Your task to perform on an android device: change notifications settings Image 0: 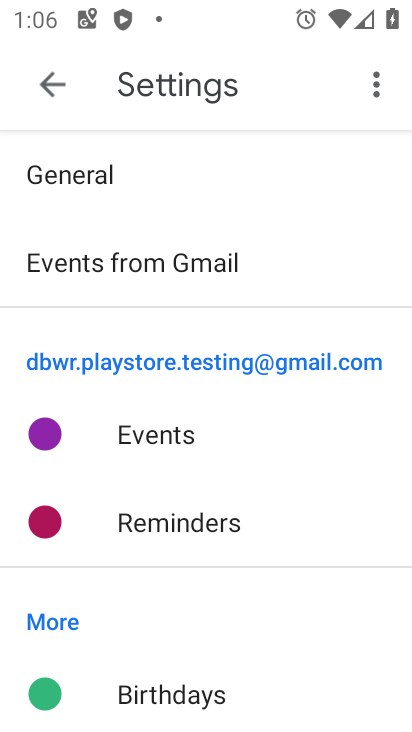
Step 0: press home button
Your task to perform on an android device: change notifications settings Image 1: 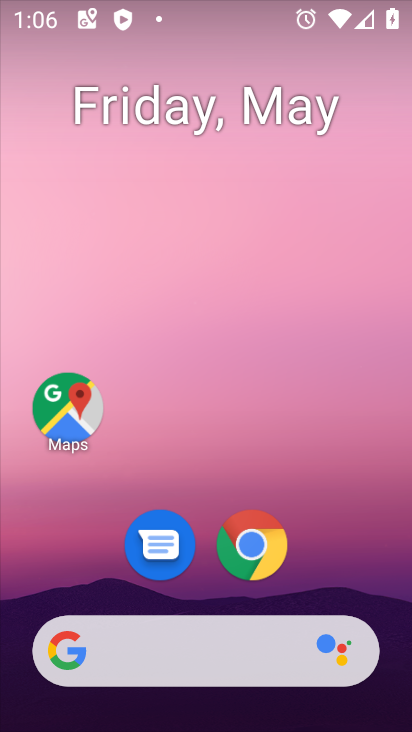
Step 1: drag from (334, 556) to (275, 78)
Your task to perform on an android device: change notifications settings Image 2: 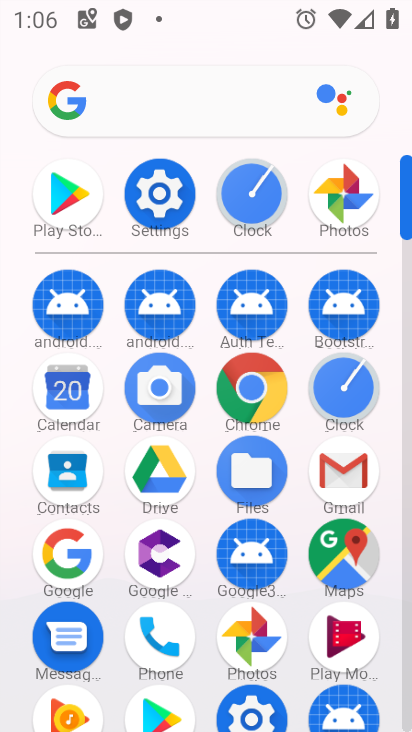
Step 2: click (163, 172)
Your task to perform on an android device: change notifications settings Image 3: 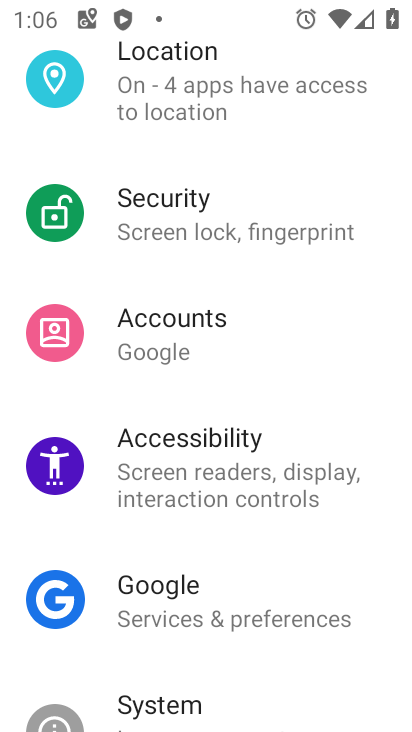
Step 3: drag from (289, 185) to (262, 615)
Your task to perform on an android device: change notifications settings Image 4: 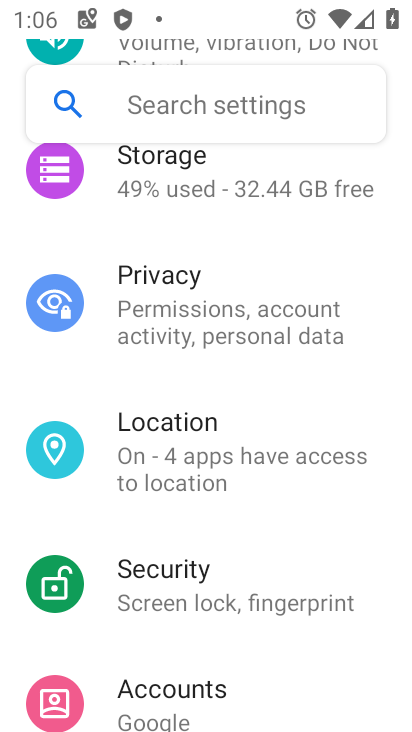
Step 4: drag from (280, 238) to (230, 647)
Your task to perform on an android device: change notifications settings Image 5: 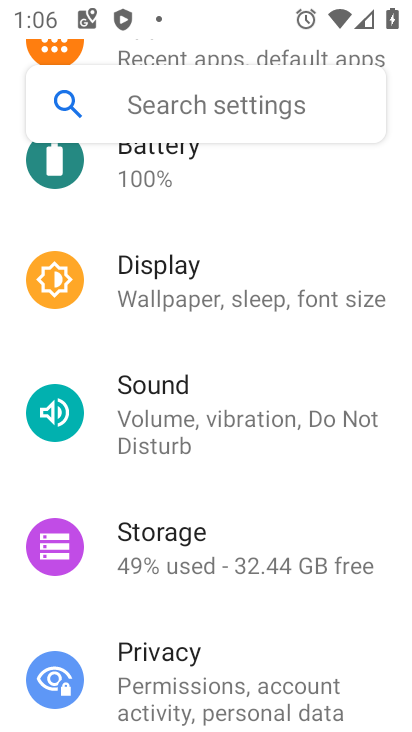
Step 5: drag from (315, 201) to (263, 578)
Your task to perform on an android device: change notifications settings Image 6: 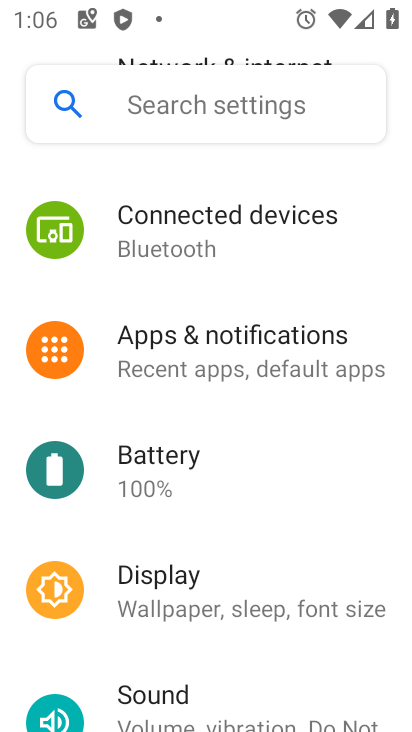
Step 6: click (256, 369)
Your task to perform on an android device: change notifications settings Image 7: 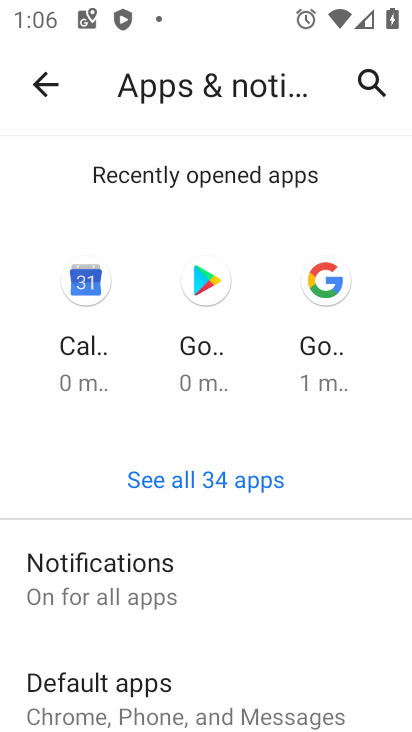
Step 7: drag from (269, 677) to (293, 171)
Your task to perform on an android device: change notifications settings Image 8: 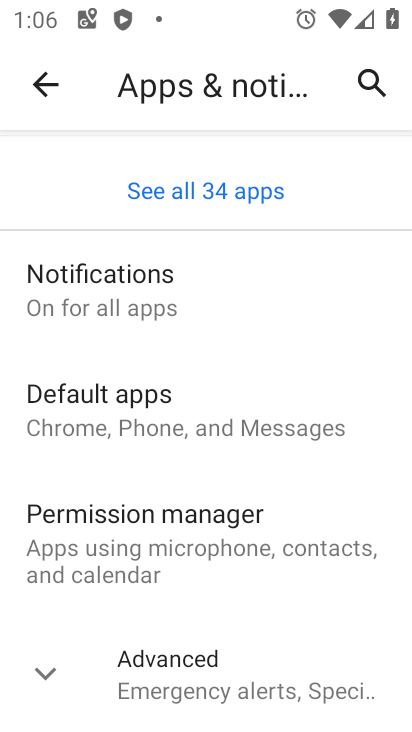
Step 8: click (154, 307)
Your task to perform on an android device: change notifications settings Image 9: 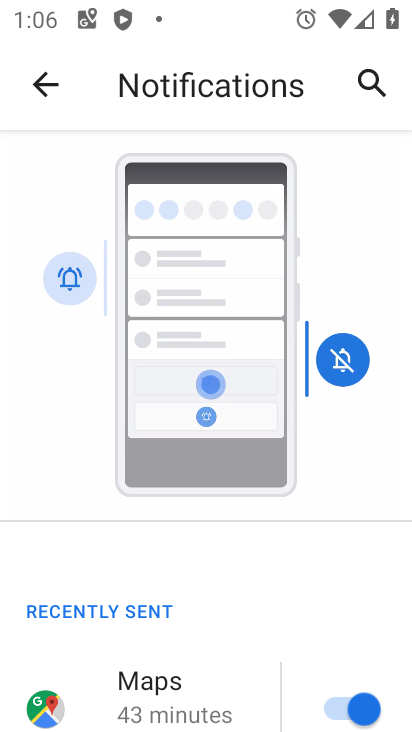
Step 9: drag from (216, 624) to (217, 185)
Your task to perform on an android device: change notifications settings Image 10: 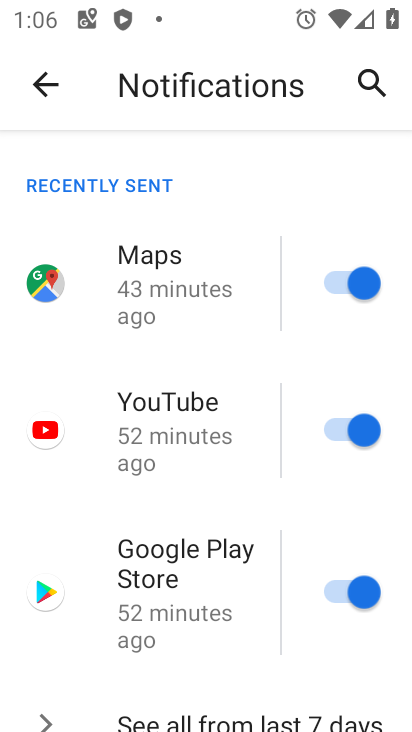
Step 10: click (340, 425)
Your task to perform on an android device: change notifications settings Image 11: 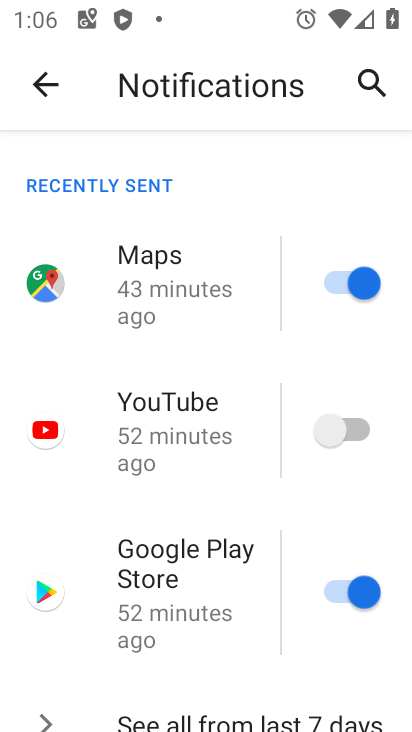
Step 11: task complete